Your task to perform on an android device: Go to Google maps Image 0: 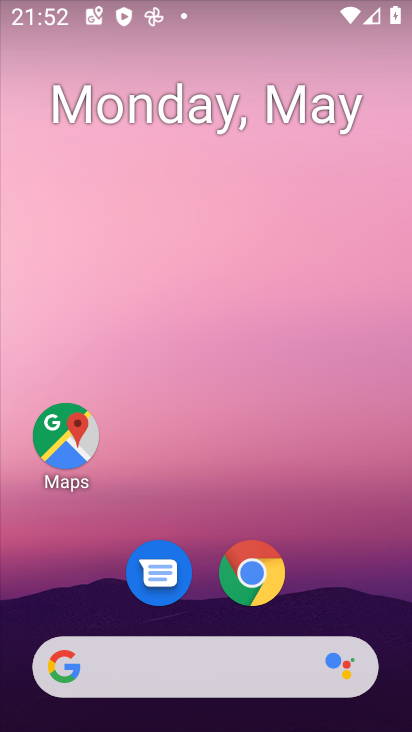
Step 0: click (70, 473)
Your task to perform on an android device: Go to Google maps Image 1: 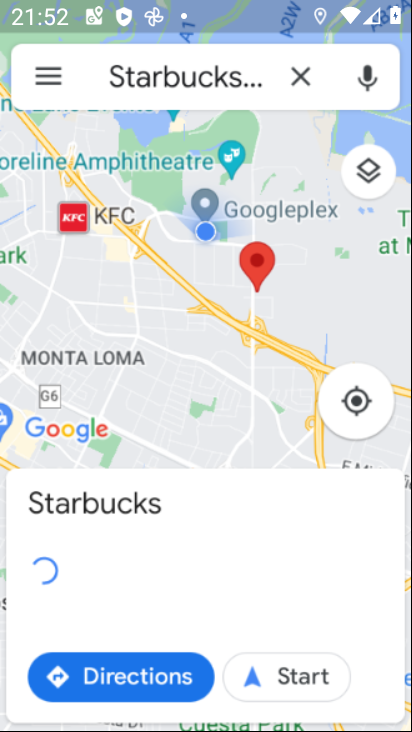
Step 1: task complete